Your task to perform on an android device: Search for seafood restaurants on Google Maps Image 0: 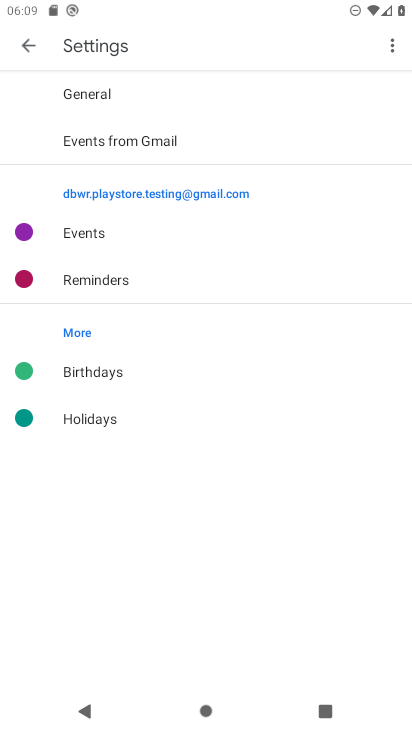
Step 0: press home button
Your task to perform on an android device: Search for seafood restaurants on Google Maps Image 1: 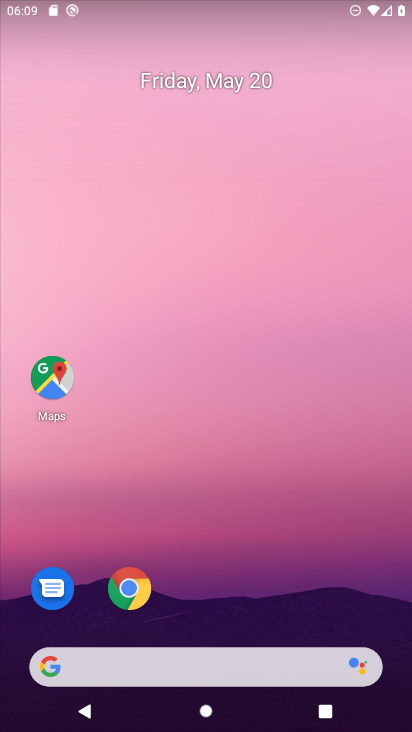
Step 1: click (56, 350)
Your task to perform on an android device: Search for seafood restaurants on Google Maps Image 2: 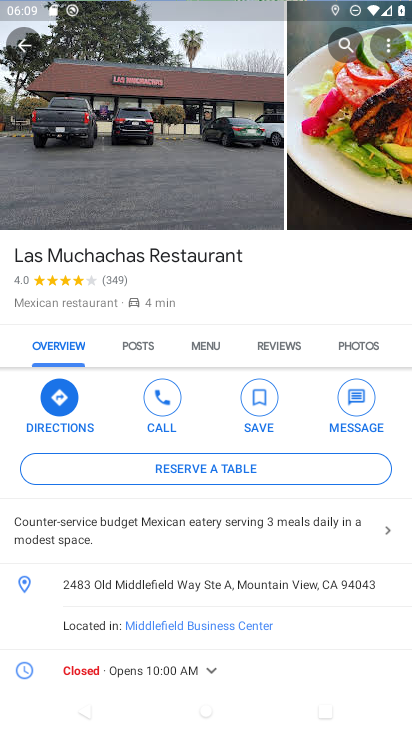
Step 2: press back button
Your task to perform on an android device: Search for seafood restaurants on Google Maps Image 3: 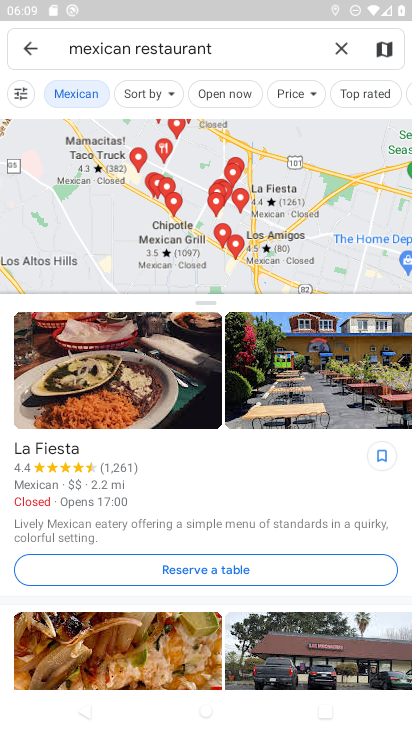
Step 3: click (338, 51)
Your task to perform on an android device: Search for seafood restaurants on Google Maps Image 4: 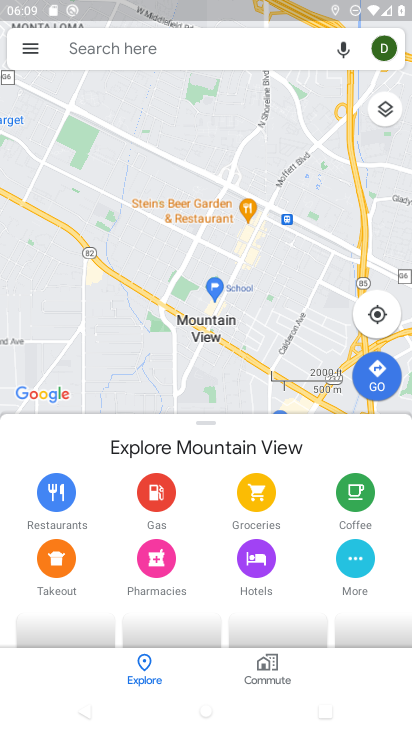
Step 4: click (154, 52)
Your task to perform on an android device: Search for seafood restaurants on Google Maps Image 5: 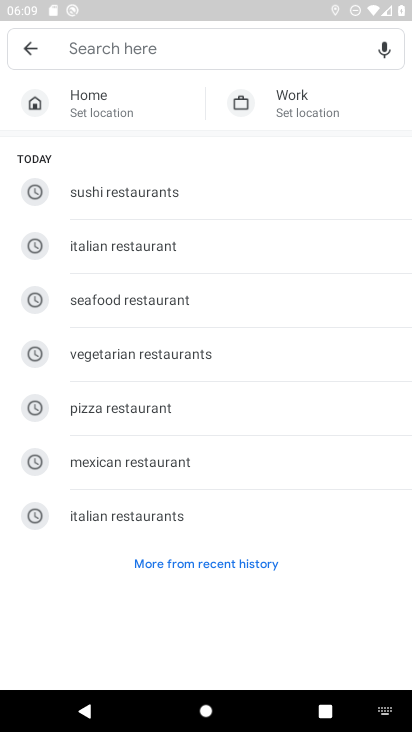
Step 5: click (94, 304)
Your task to perform on an android device: Search for seafood restaurants on Google Maps Image 6: 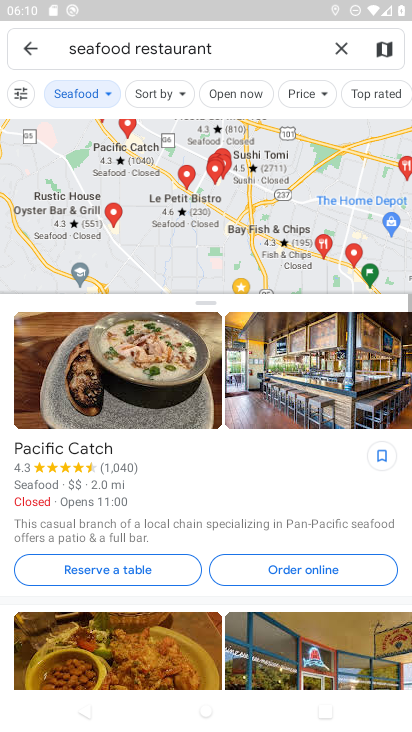
Step 6: task complete